Your task to perform on an android device: change the clock display to digital Image 0: 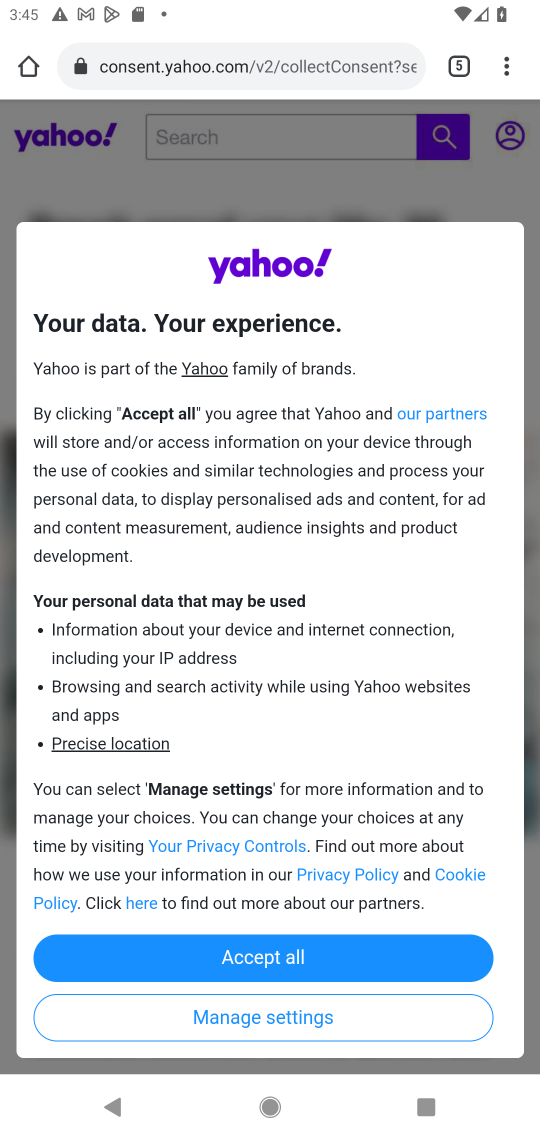
Step 0: press home button
Your task to perform on an android device: change the clock display to digital Image 1: 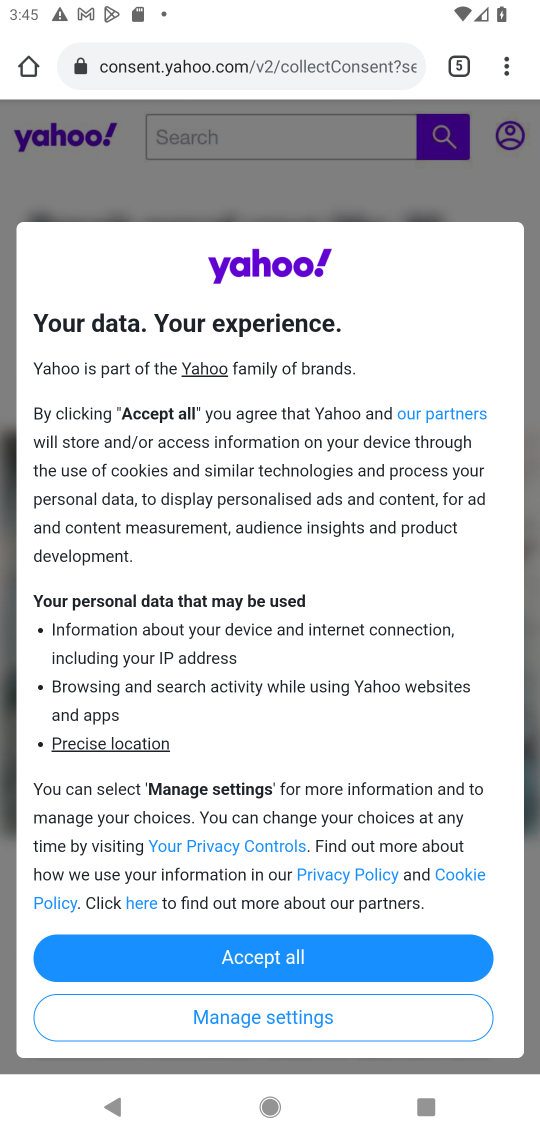
Step 1: press home button
Your task to perform on an android device: change the clock display to digital Image 2: 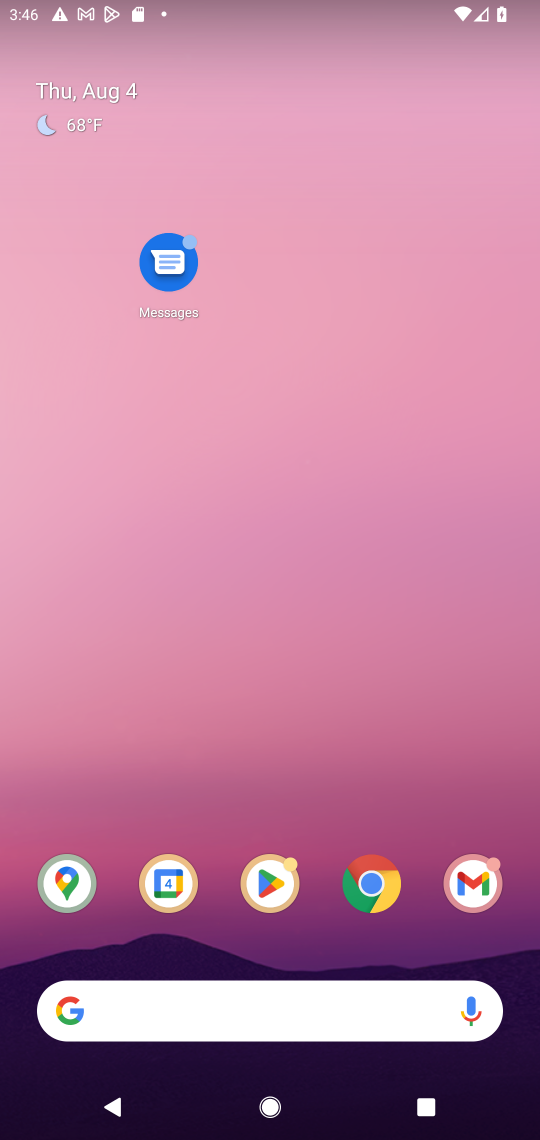
Step 2: drag from (304, 916) to (309, 90)
Your task to perform on an android device: change the clock display to digital Image 3: 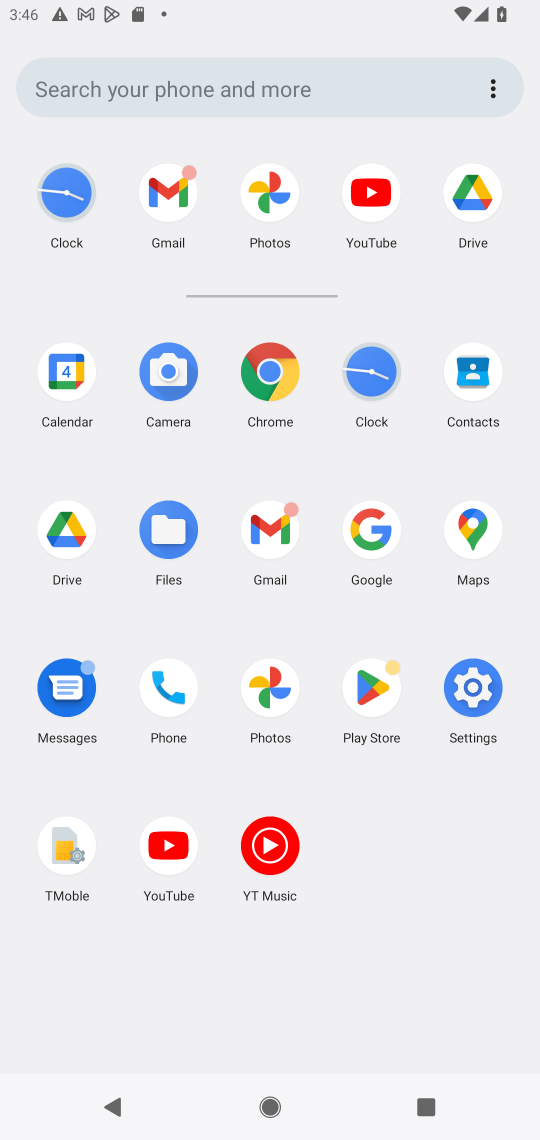
Step 3: click (371, 372)
Your task to perform on an android device: change the clock display to digital Image 4: 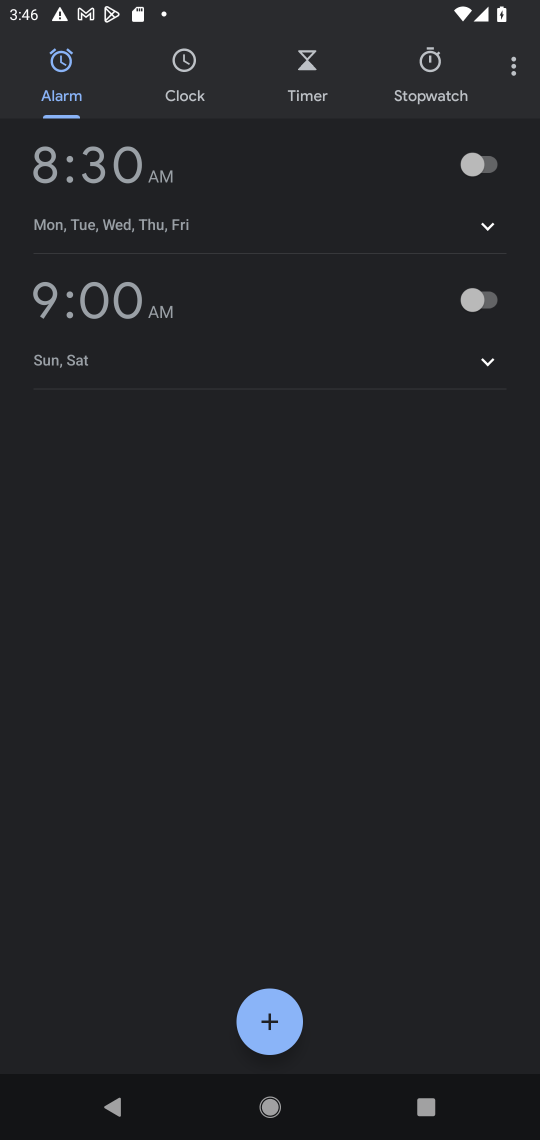
Step 4: click (515, 79)
Your task to perform on an android device: change the clock display to digital Image 5: 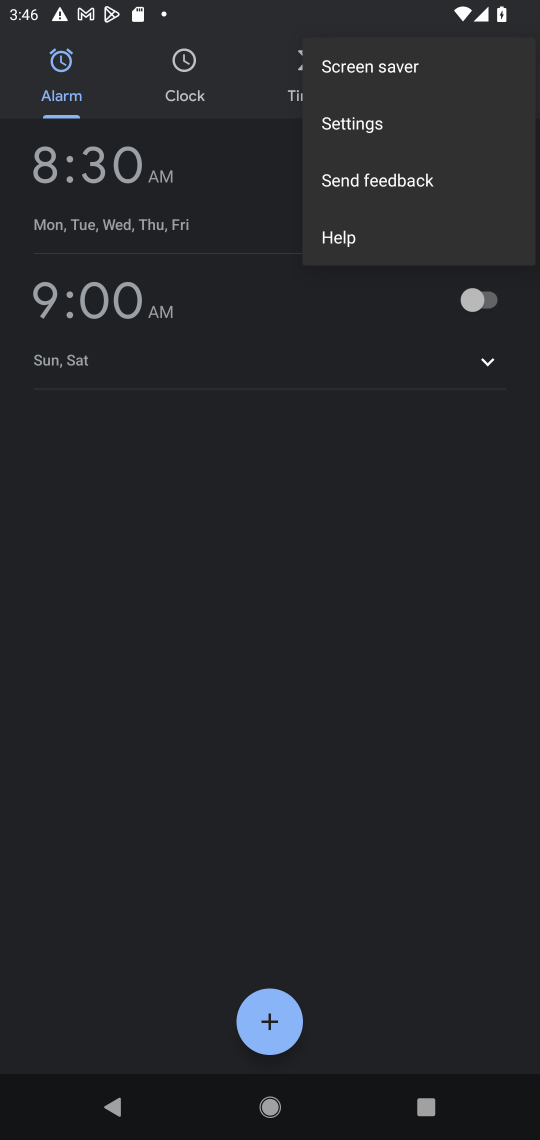
Step 5: click (356, 119)
Your task to perform on an android device: change the clock display to digital Image 6: 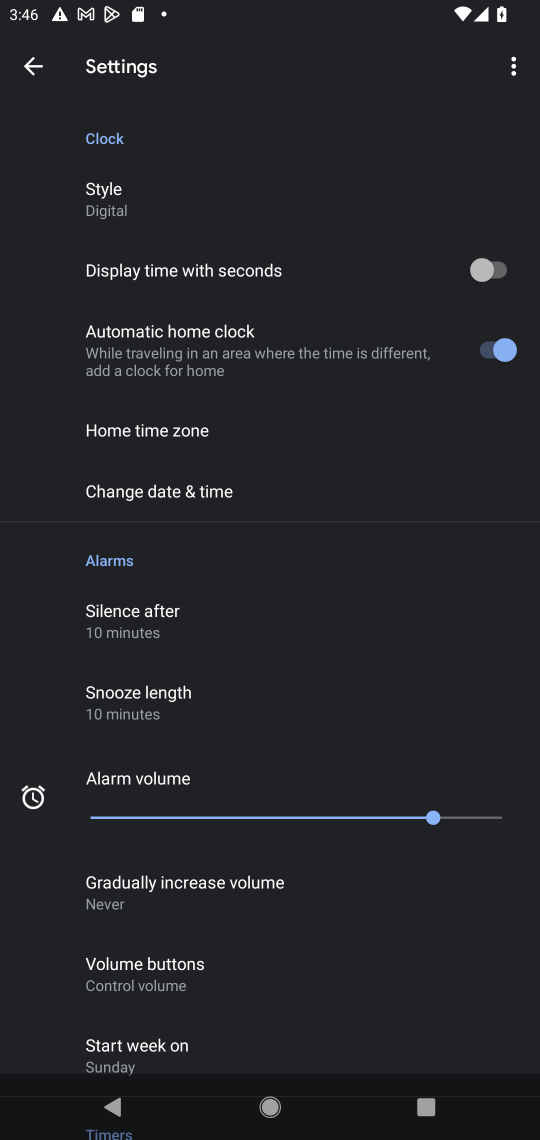
Step 6: task complete